Your task to perform on an android device: turn on the 24-hour format for clock Image 0: 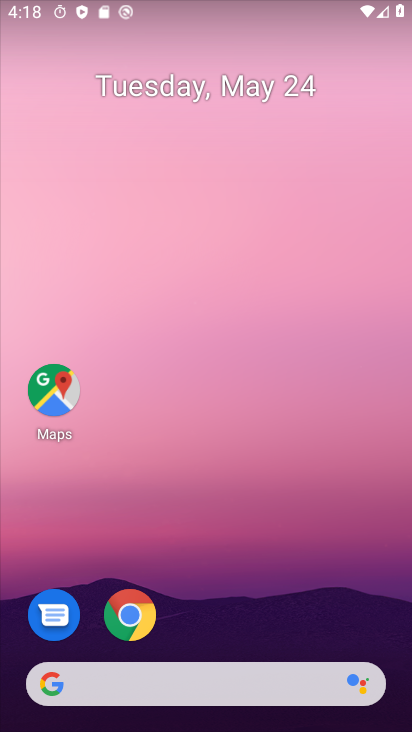
Step 0: drag from (223, 568) to (314, 94)
Your task to perform on an android device: turn on the 24-hour format for clock Image 1: 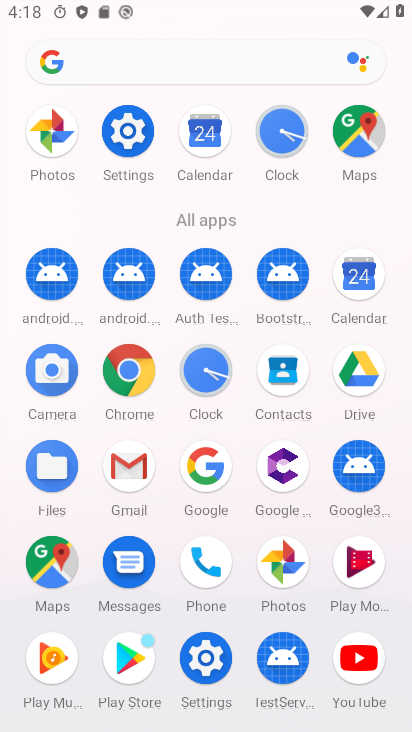
Step 1: click (207, 367)
Your task to perform on an android device: turn on the 24-hour format for clock Image 2: 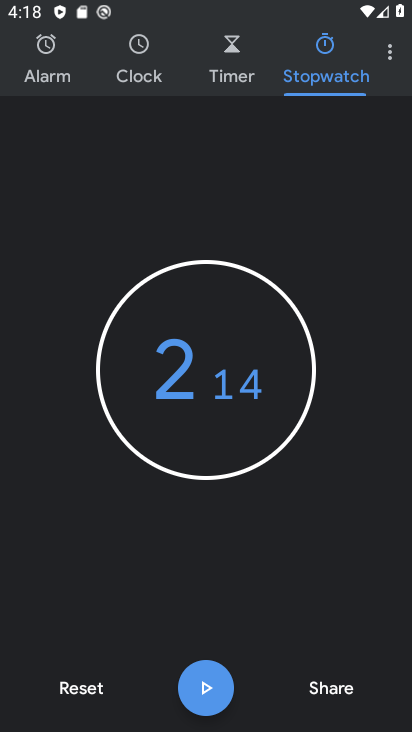
Step 2: click (387, 42)
Your task to perform on an android device: turn on the 24-hour format for clock Image 3: 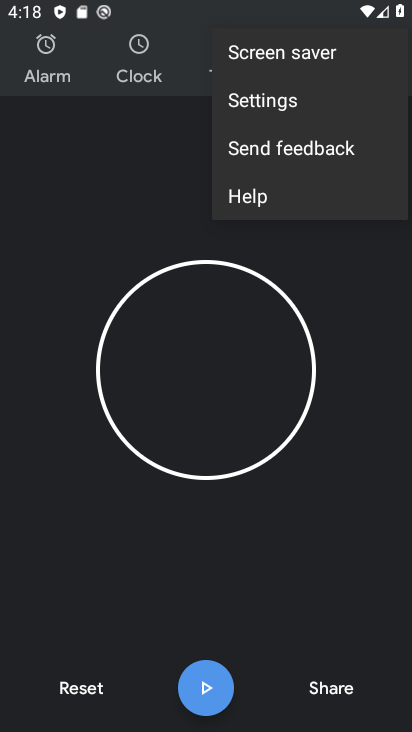
Step 3: click (300, 90)
Your task to perform on an android device: turn on the 24-hour format for clock Image 4: 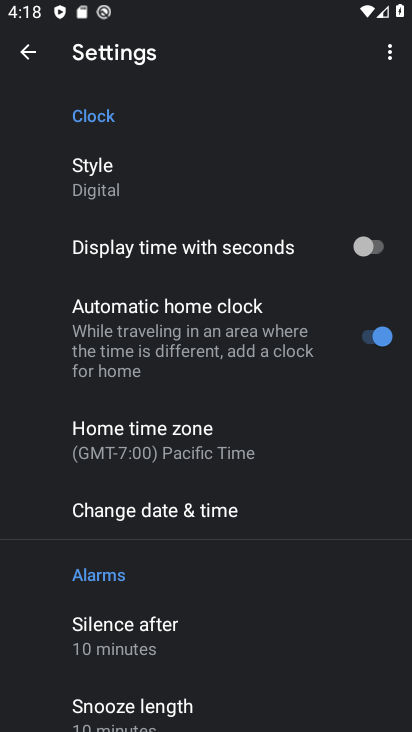
Step 4: click (174, 502)
Your task to perform on an android device: turn on the 24-hour format for clock Image 5: 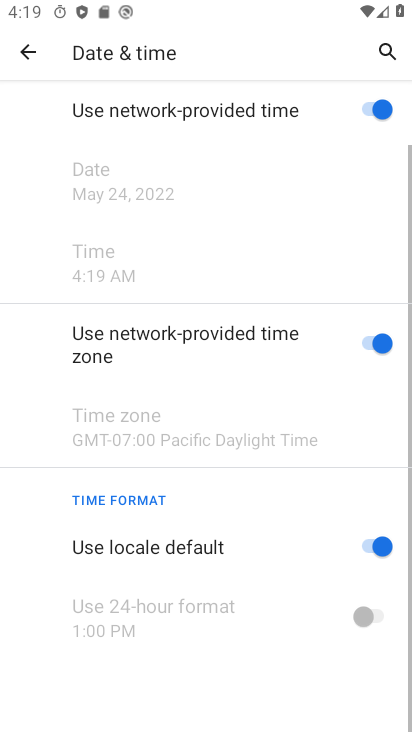
Step 5: click (360, 552)
Your task to perform on an android device: turn on the 24-hour format for clock Image 6: 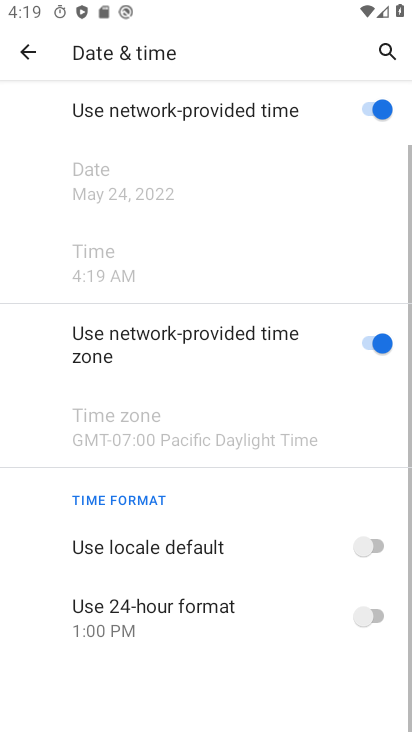
Step 6: click (371, 618)
Your task to perform on an android device: turn on the 24-hour format for clock Image 7: 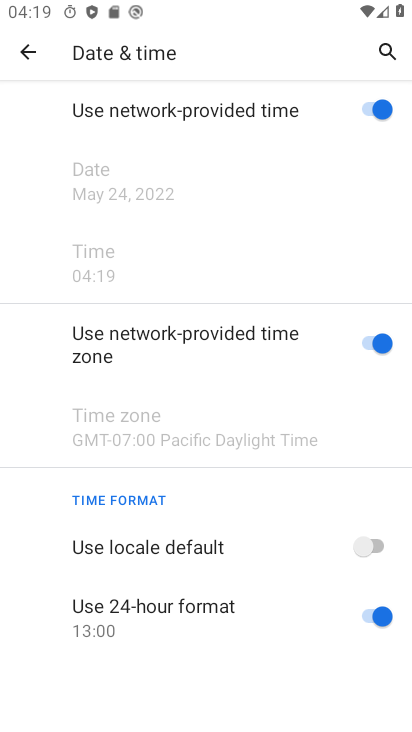
Step 7: task complete